Your task to perform on an android device: turn on the 24-hour format for clock Image 0: 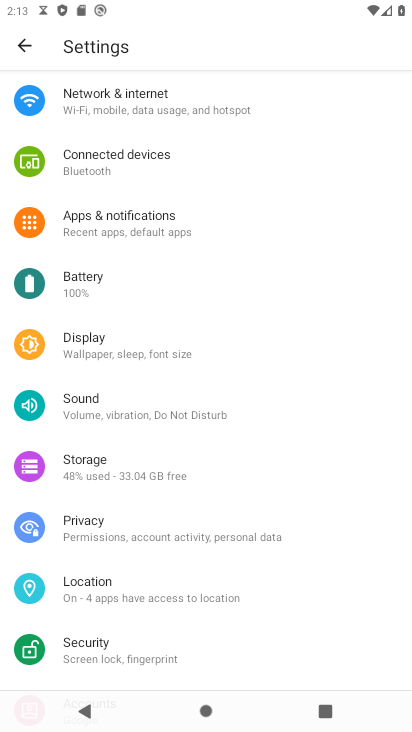
Step 0: press home button
Your task to perform on an android device: turn on the 24-hour format for clock Image 1: 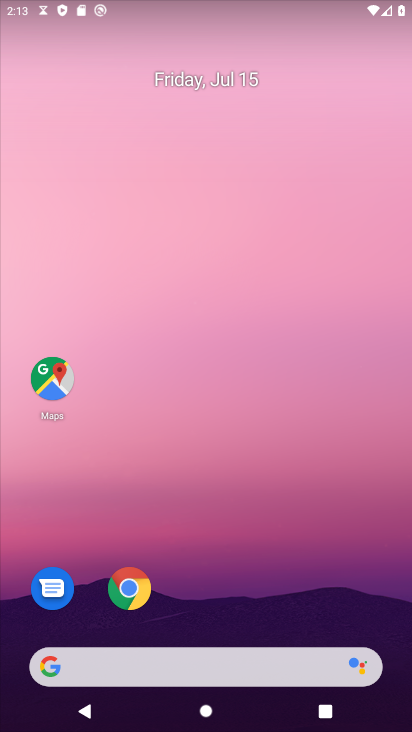
Step 1: drag from (237, 669) to (359, 261)
Your task to perform on an android device: turn on the 24-hour format for clock Image 2: 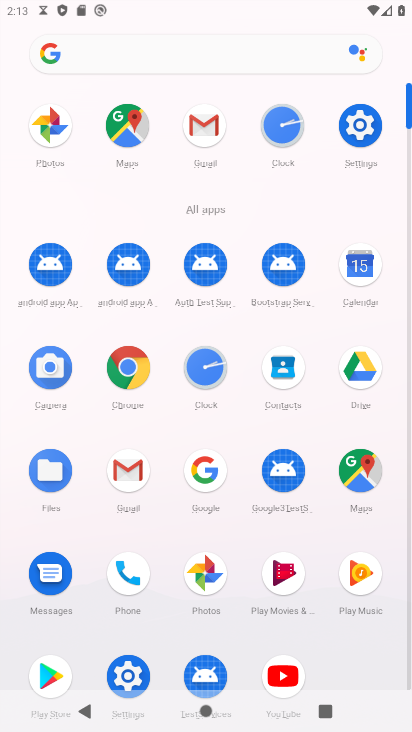
Step 2: click (205, 380)
Your task to perform on an android device: turn on the 24-hour format for clock Image 3: 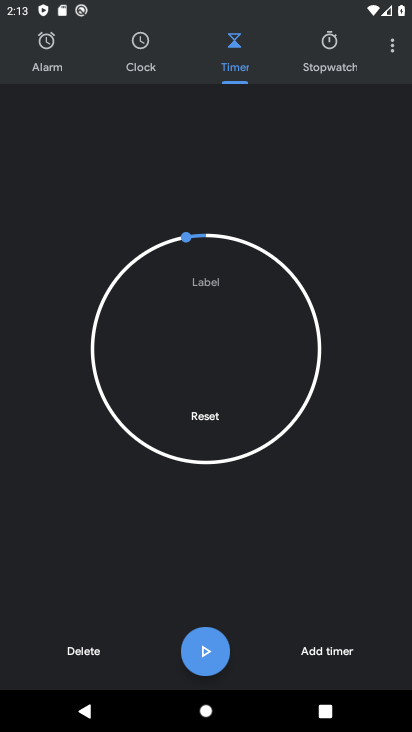
Step 3: click (391, 44)
Your task to perform on an android device: turn on the 24-hour format for clock Image 4: 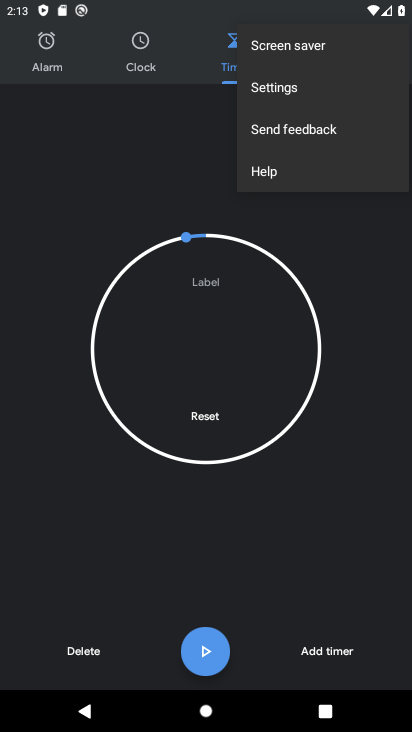
Step 4: click (278, 94)
Your task to perform on an android device: turn on the 24-hour format for clock Image 5: 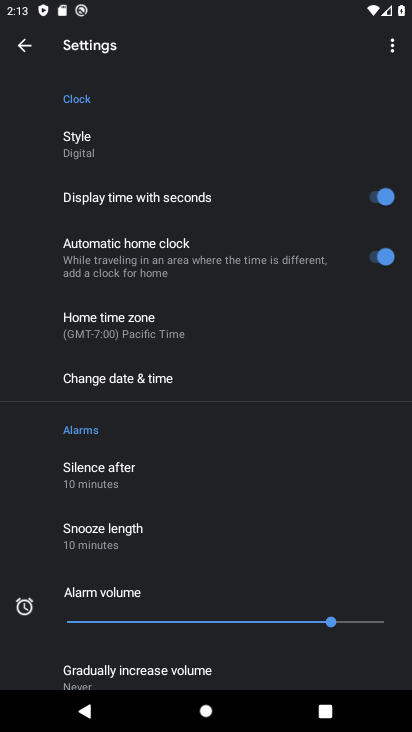
Step 5: click (145, 374)
Your task to perform on an android device: turn on the 24-hour format for clock Image 6: 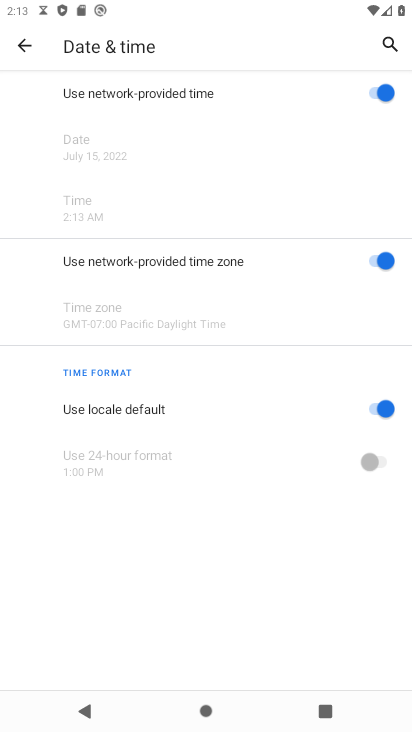
Step 6: click (379, 458)
Your task to perform on an android device: turn on the 24-hour format for clock Image 7: 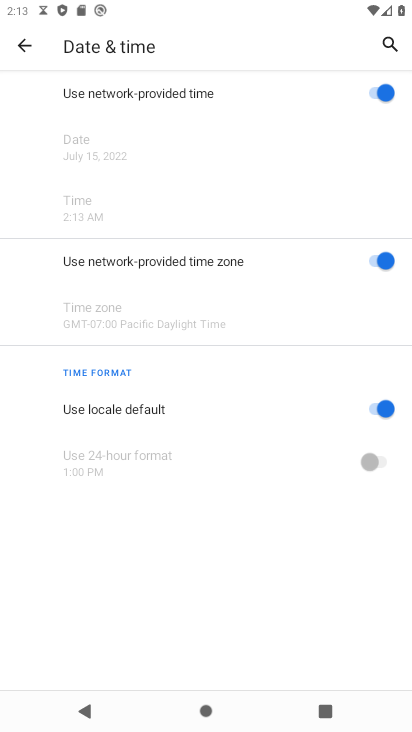
Step 7: click (375, 406)
Your task to perform on an android device: turn on the 24-hour format for clock Image 8: 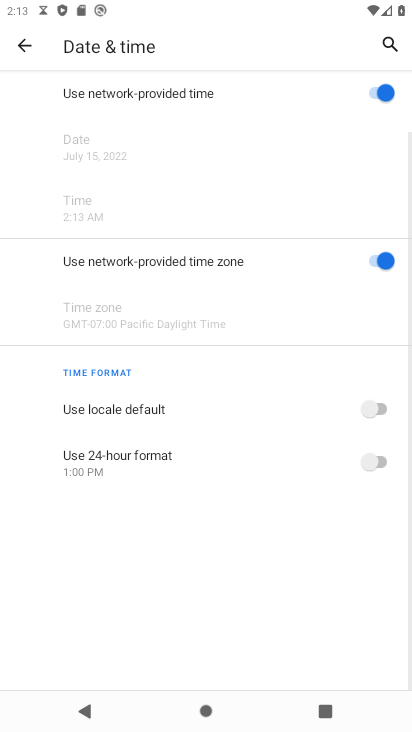
Step 8: click (385, 463)
Your task to perform on an android device: turn on the 24-hour format for clock Image 9: 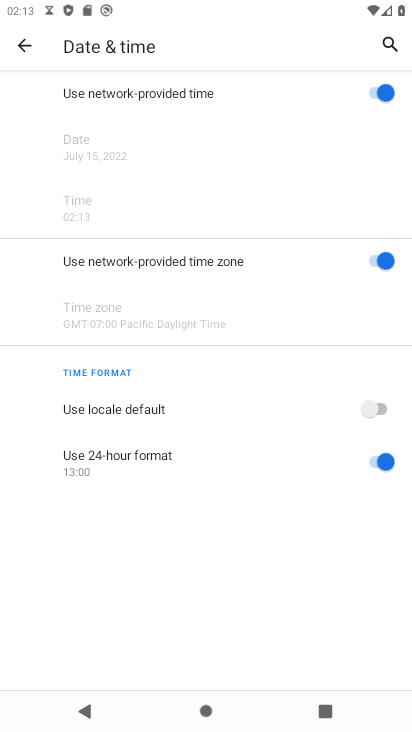
Step 9: task complete